Your task to perform on an android device: Open Chrome and go to settings Image 0: 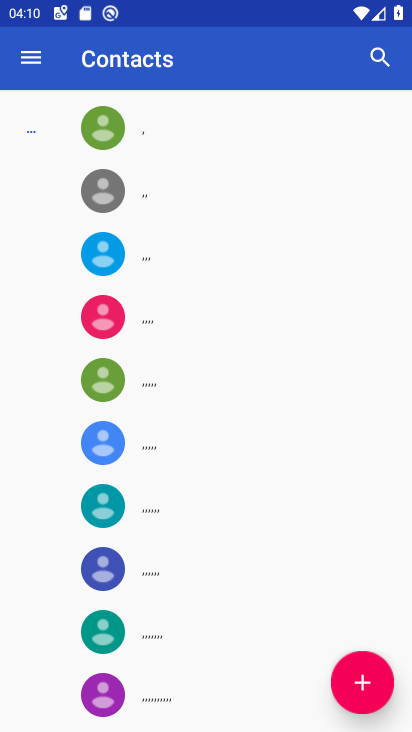
Step 0: press home button
Your task to perform on an android device: Open Chrome and go to settings Image 1: 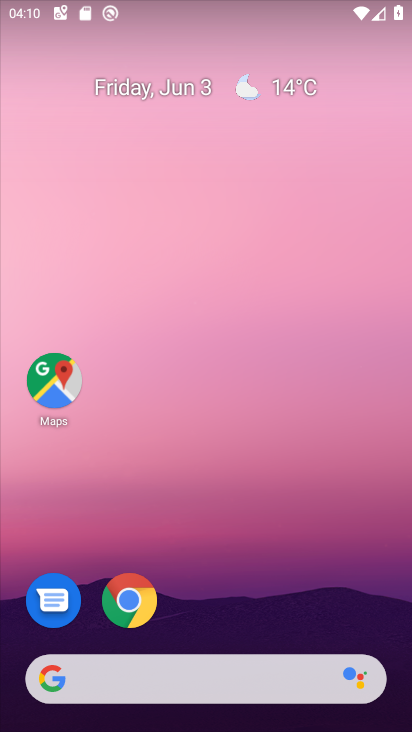
Step 1: click (140, 597)
Your task to perform on an android device: Open Chrome and go to settings Image 2: 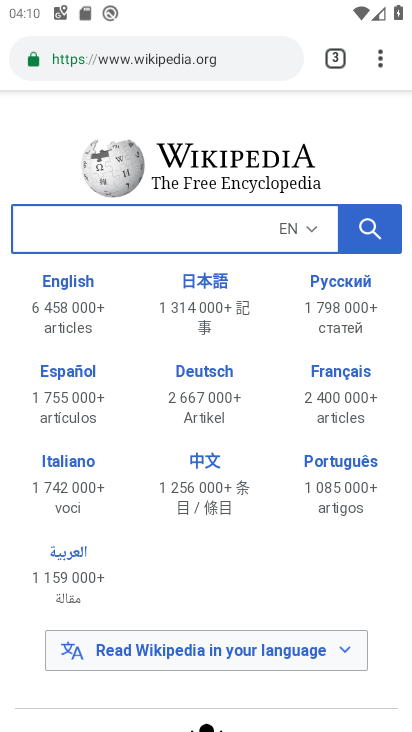
Step 2: task complete